Your task to perform on an android device: What's on my calendar today? Image 0: 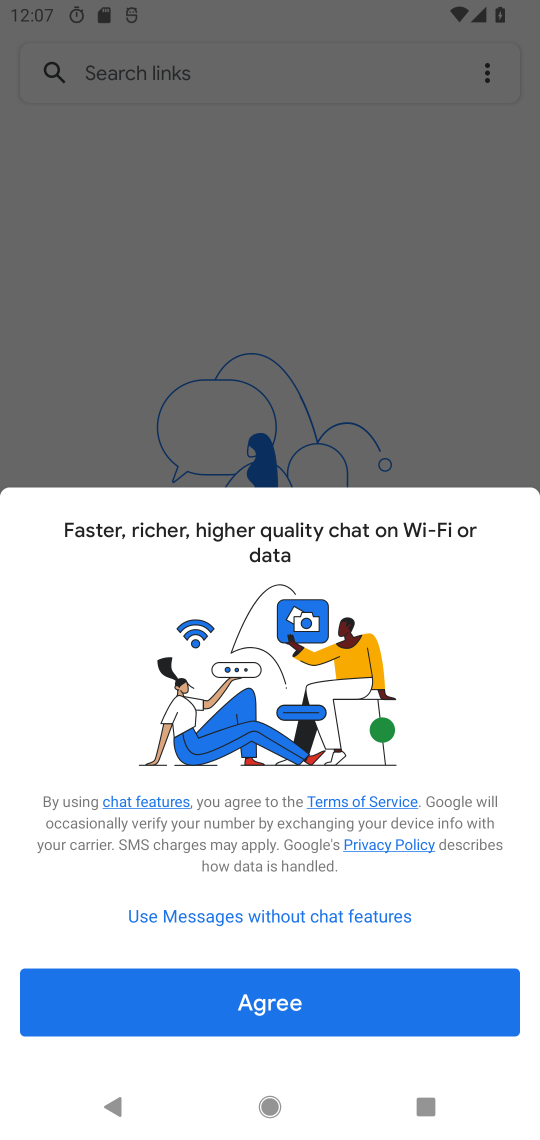
Step 0: press home button
Your task to perform on an android device: What's on my calendar today? Image 1: 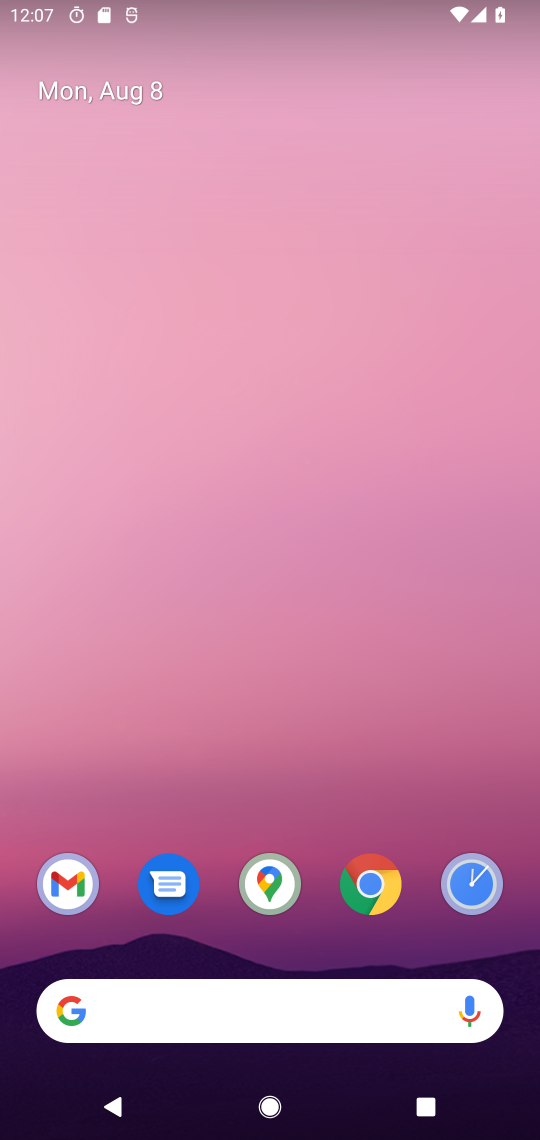
Step 1: press home button
Your task to perform on an android device: What's on my calendar today? Image 2: 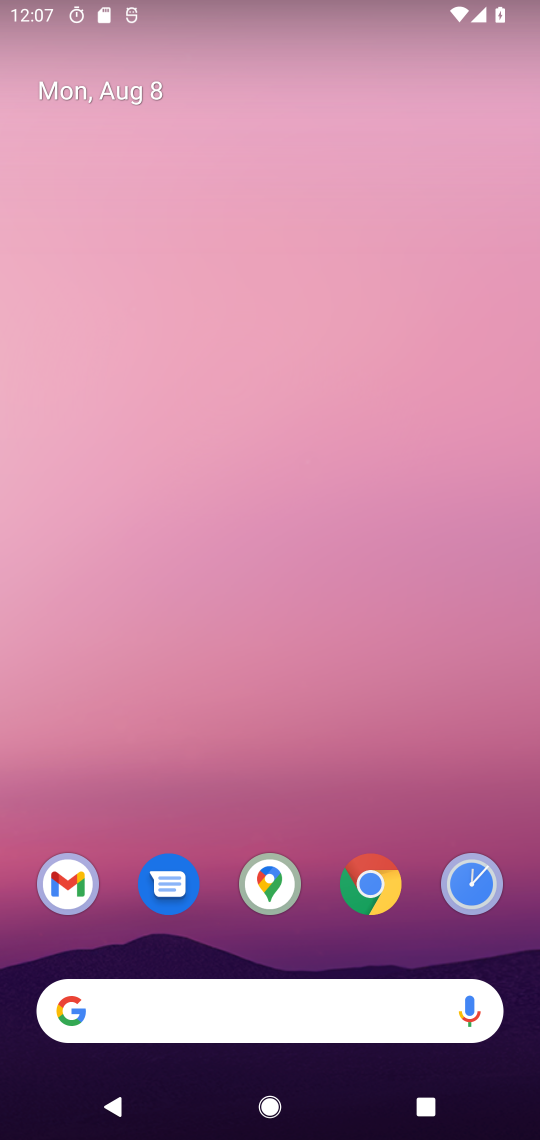
Step 2: drag from (231, 734) to (218, 196)
Your task to perform on an android device: What's on my calendar today? Image 3: 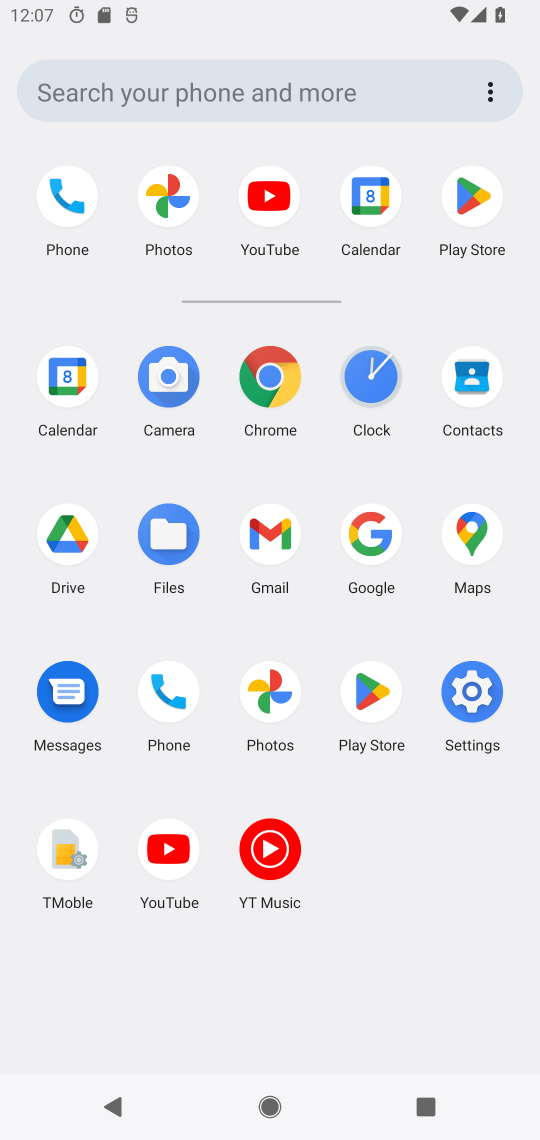
Step 3: click (69, 402)
Your task to perform on an android device: What's on my calendar today? Image 4: 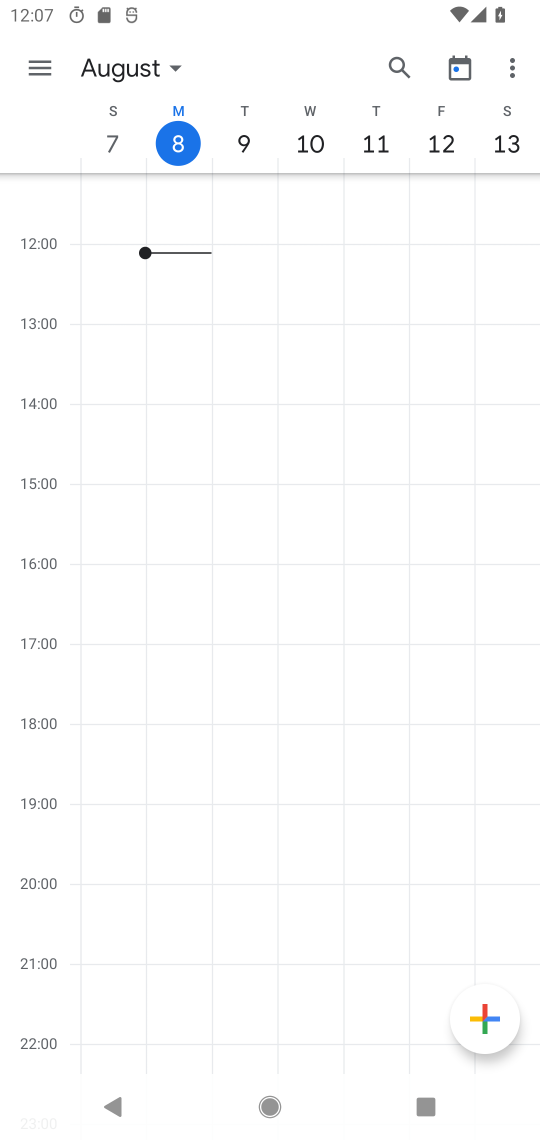
Step 4: click (187, 144)
Your task to perform on an android device: What's on my calendar today? Image 5: 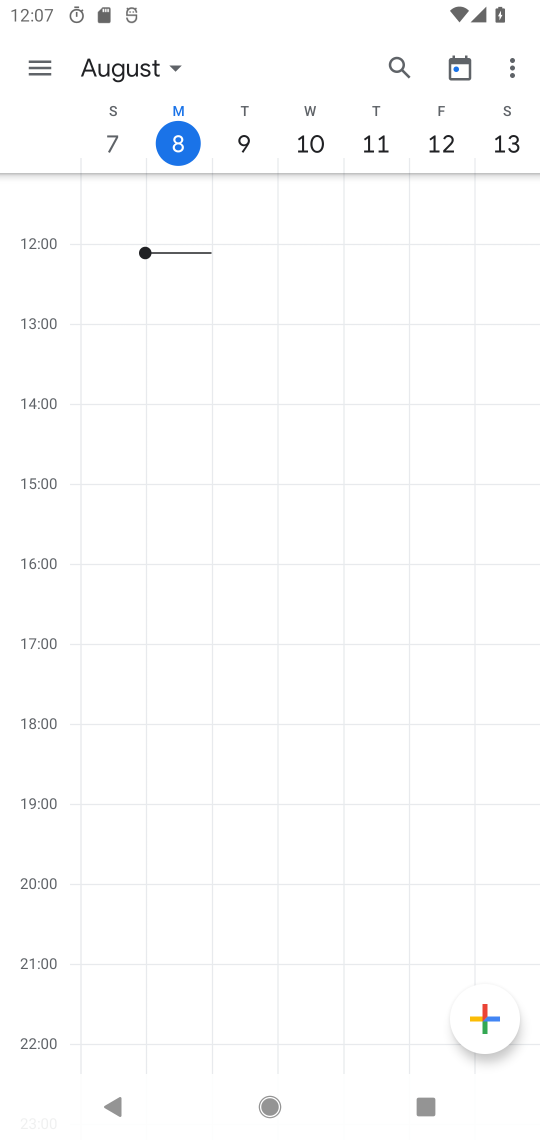
Step 5: click (187, 144)
Your task to perform on an android device: What's on my calendar today? Image 6: 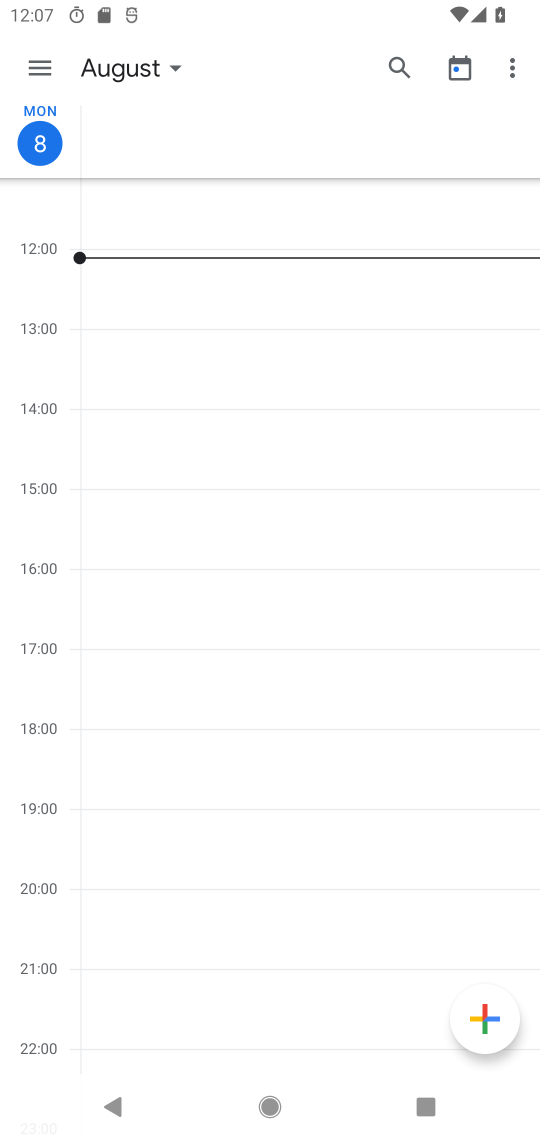
Step 6: task complete